Your task to perform on an android device: open app "Facebook Messenger" Image 0: 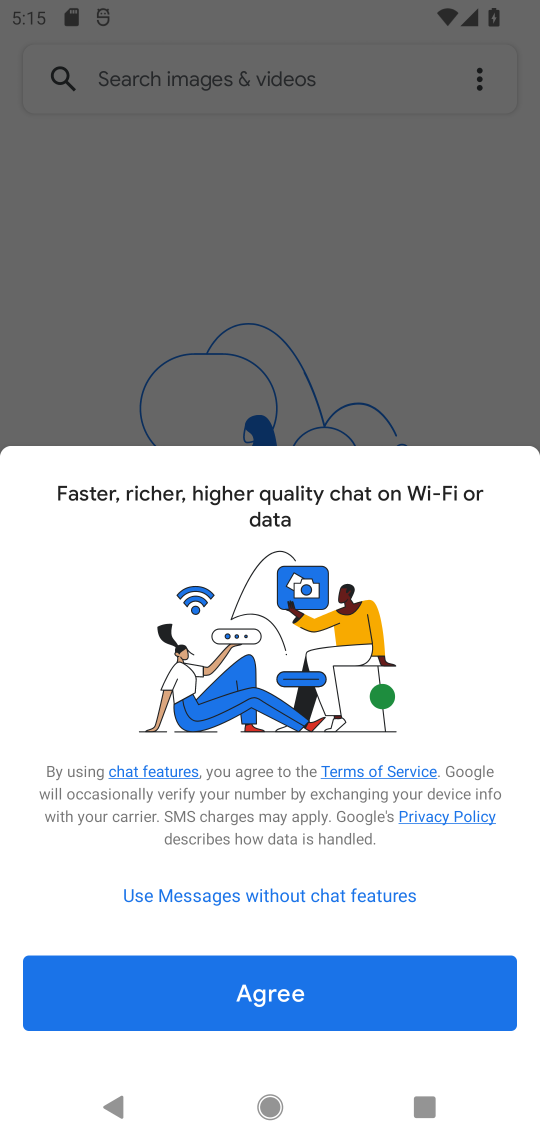
Step 0: press home button
Your task to perform on an android device: open app "Facebook Messenger" Image 1: 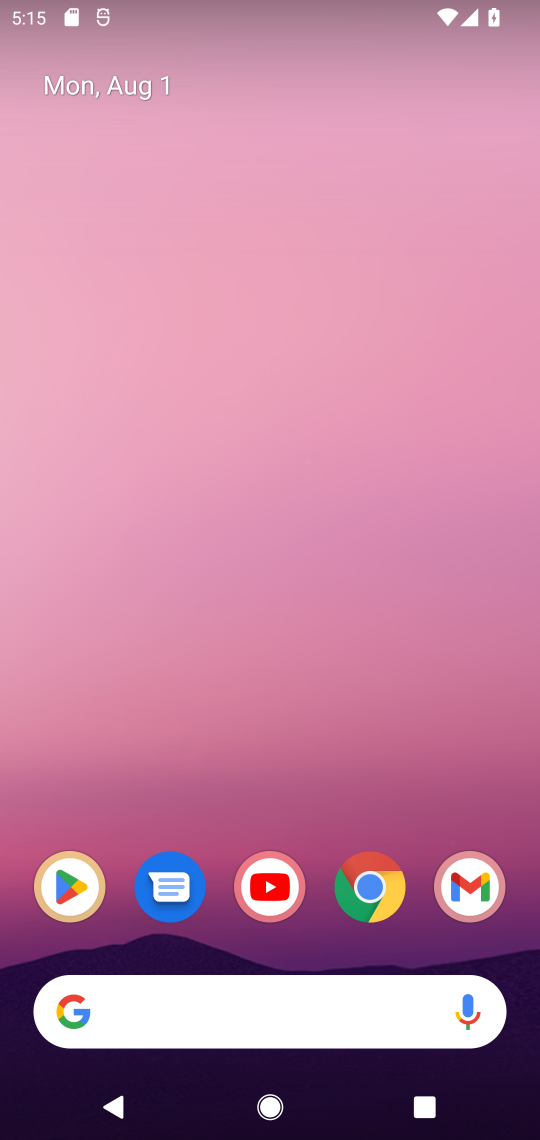
Step 1: click (89, 904)
Your task to perform on an android device: open app "Facebook Messenger" Image 2: 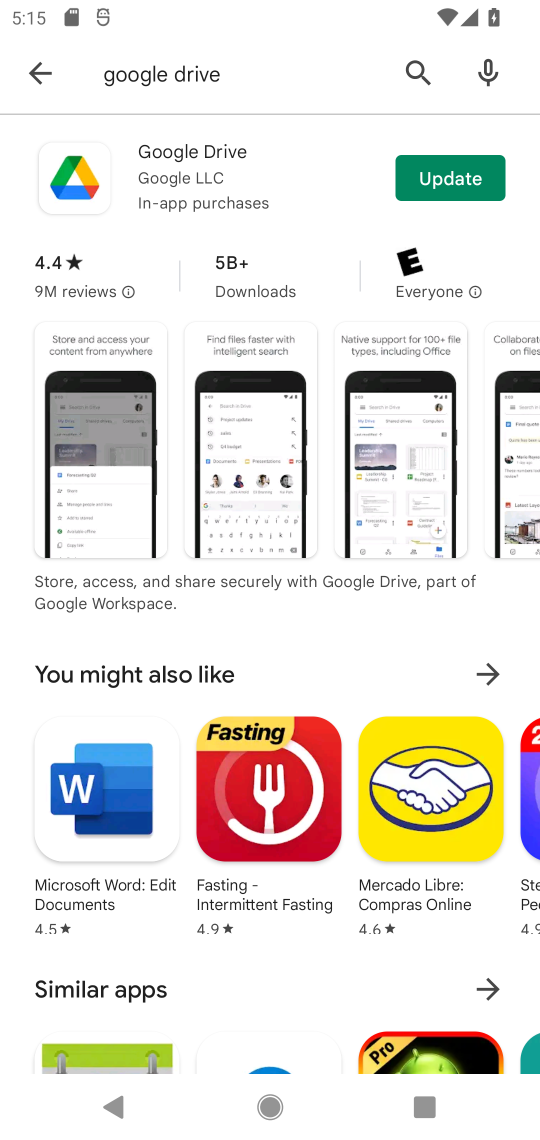
Step 2: click (60, 66)
Your task to perform on an android device: open app "Facebook Messenger" Image 3: 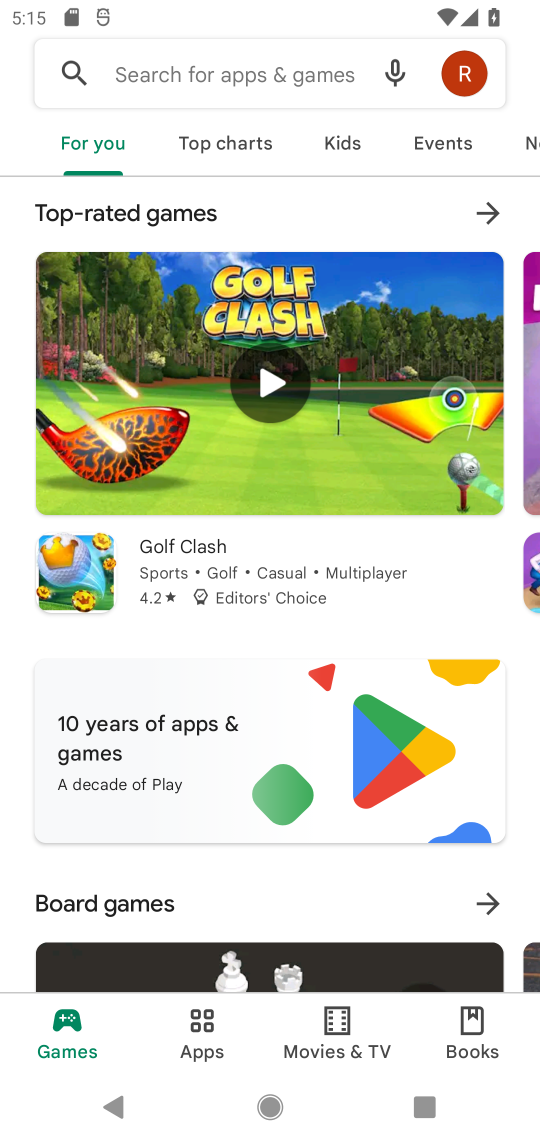
Step 3: click (159, 64)
Your task to perform on an android device: open app "Facebook Messenger" Image 4: 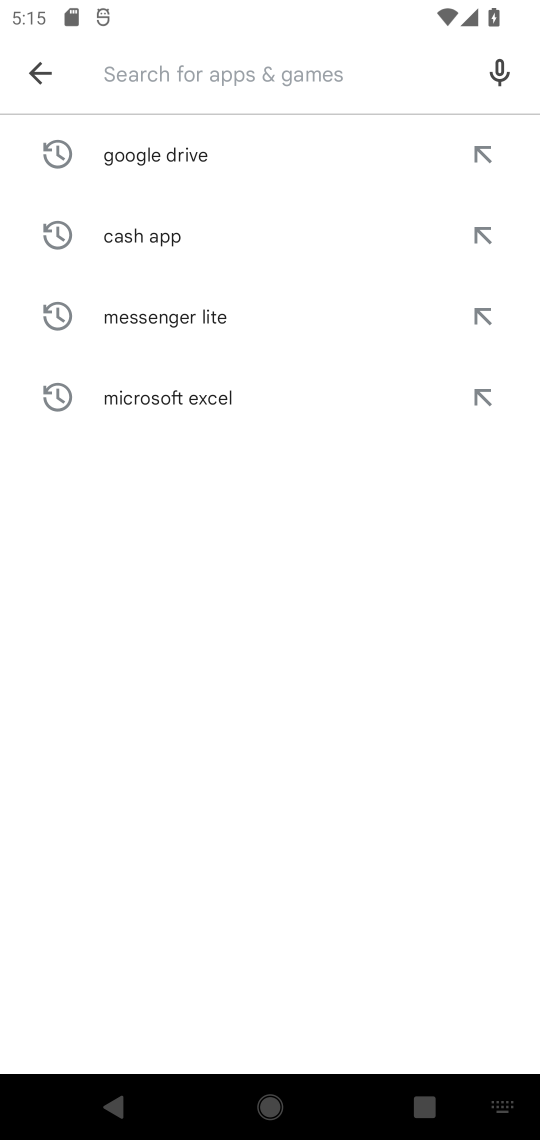
Step 4: type "Facebook Messenger"
Your task to perform on an android device: open app "Facebook Messenger" Image 5: 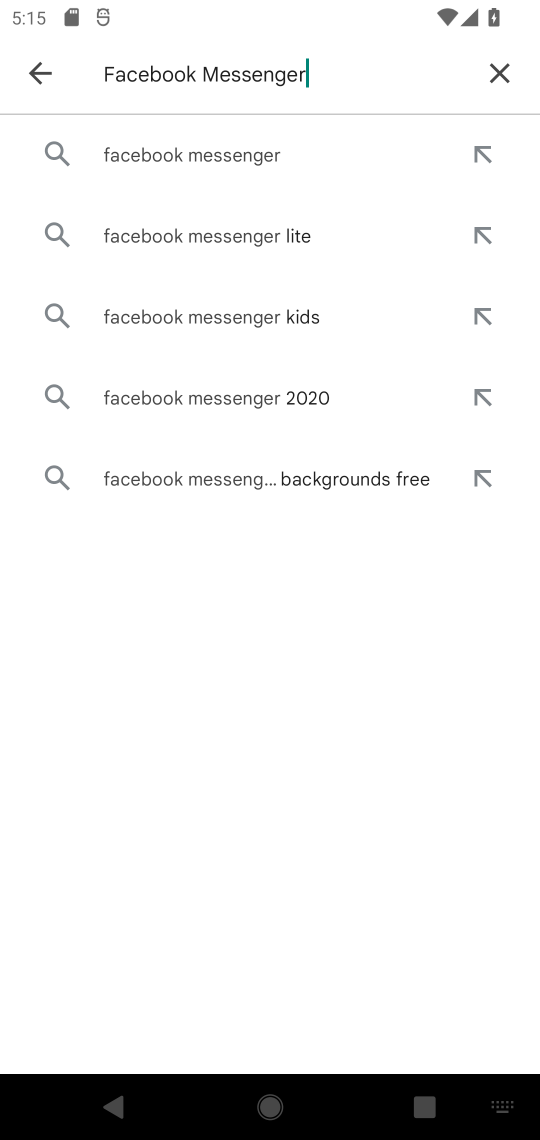
Step 5: click (105, 146)
Your task to perform on an android device: open app "Facebook Messenger" Image 6: 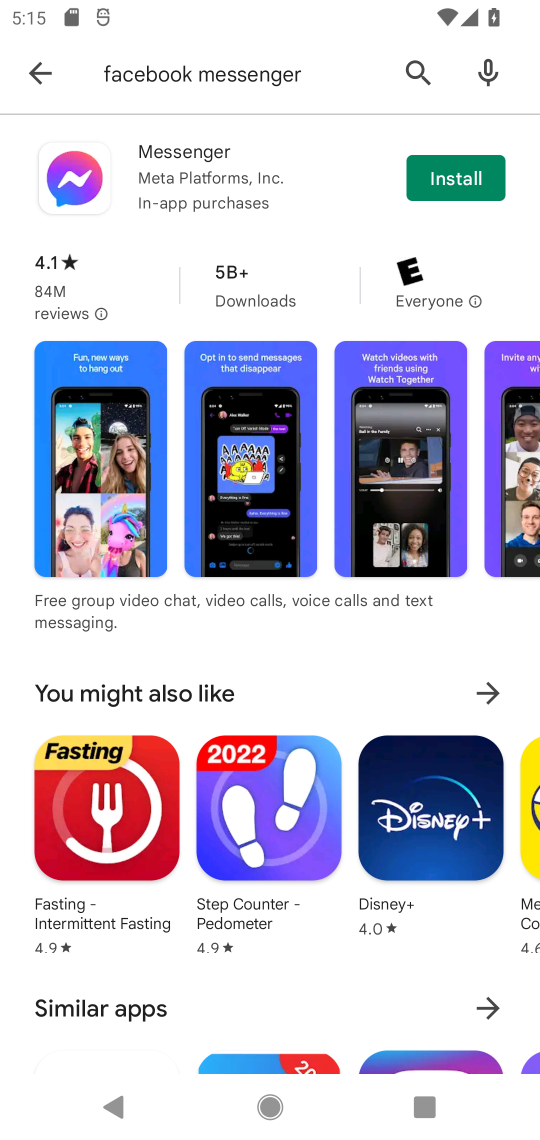
Step 6: task complete